Your task to perform on an android device: Open calendar and show me the second week of next month Image 0: 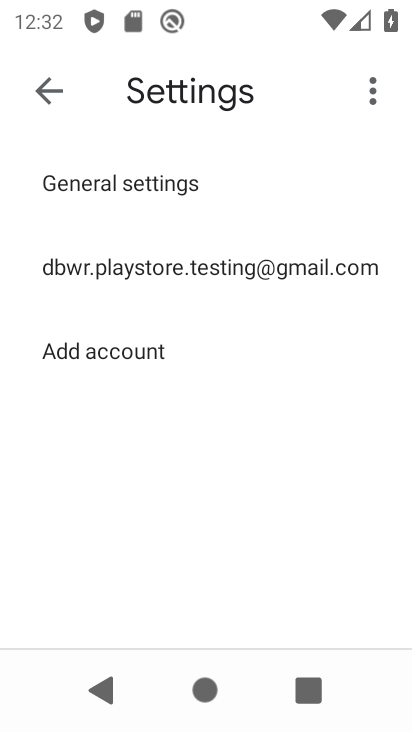
Step 0: press home button
Your task to perform on an android device: Open calendar and show me the second week of next month Image 1: 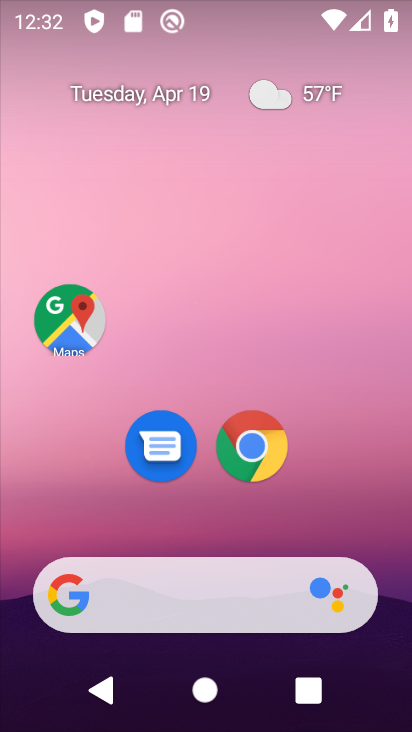
Step 1: drag from (349, 497) to (338, 46)
Your task to perform on an android device: Open calendar and show me the second week of next month Image 2: 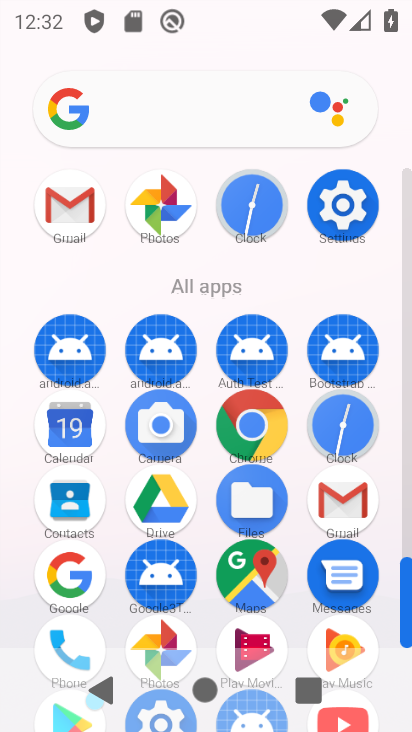
Step 2: click (69, 419)
Your task to perform on an android device: Open calendar and show me the second week of next month Image 3: 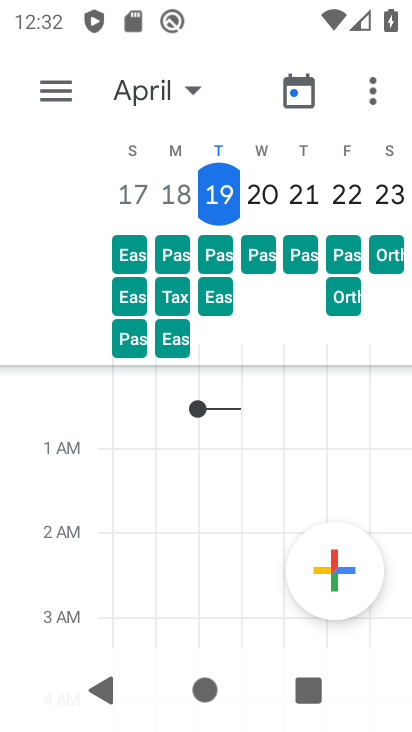
Step 3: task complete